Your task to perform on an android device: What is the news today? Image 0: 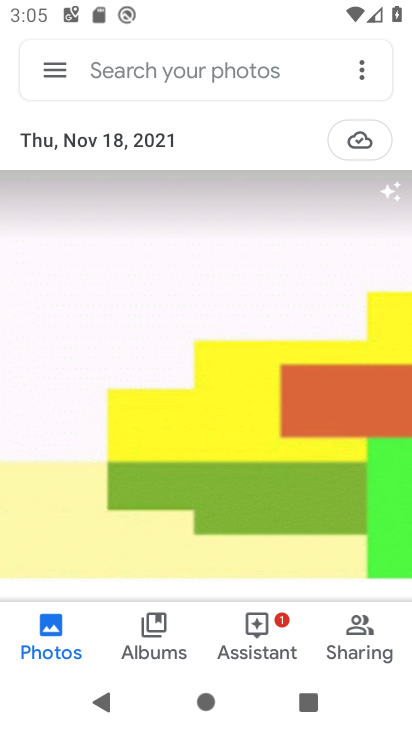
Step 0: press home button
Your task to perform on an android device: What is the news today? Image 1: 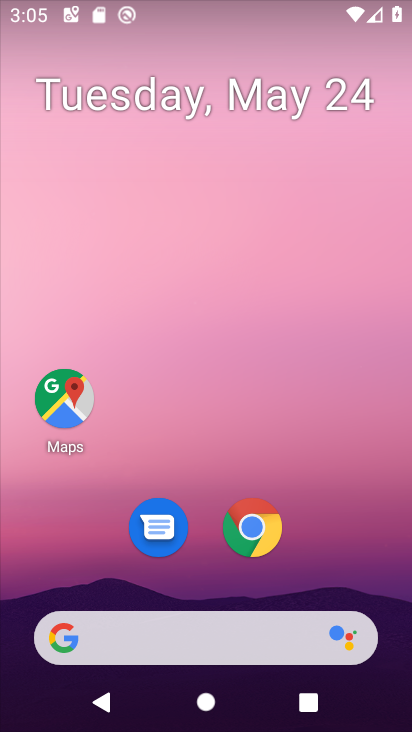
Step 1: click (102, 635)
Your task to perform on an android device: What is the news today? Image 2: 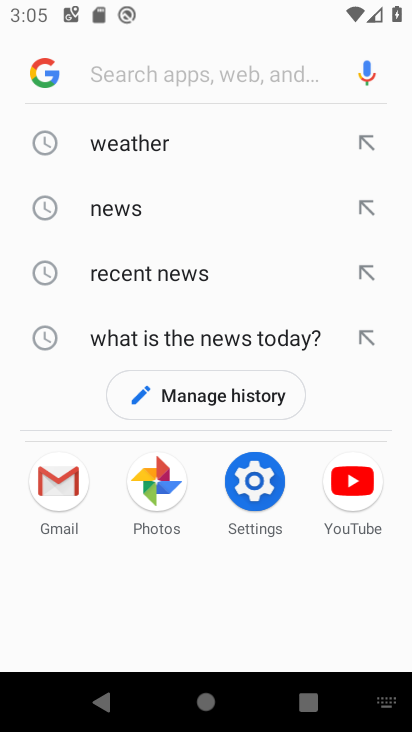
Step 2: click (150, 76)
Your task to perform on an android device: What is the news today? Image 3: 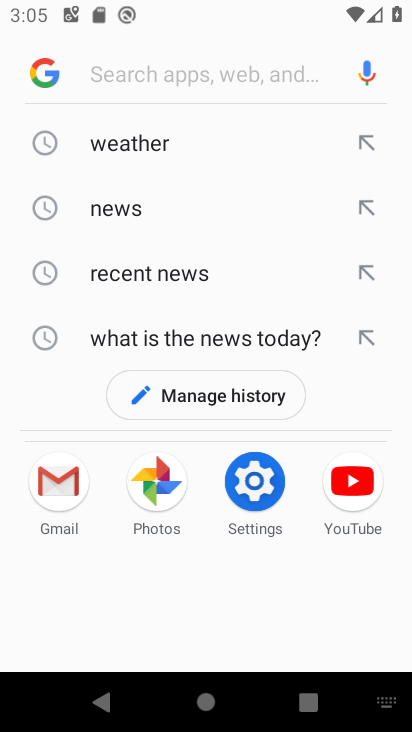
Step 3: type "news today"
Your task to perform on an android device: What is the news today? Image 4: 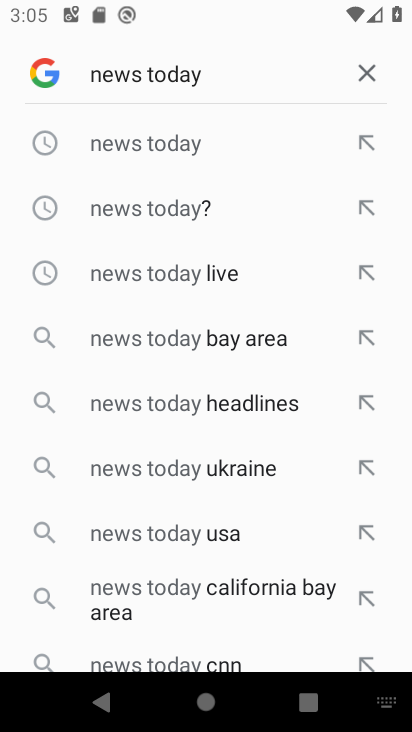
Step 4: click (136, 152)
Your task to perform on an android device: What is the news today? Image 5: 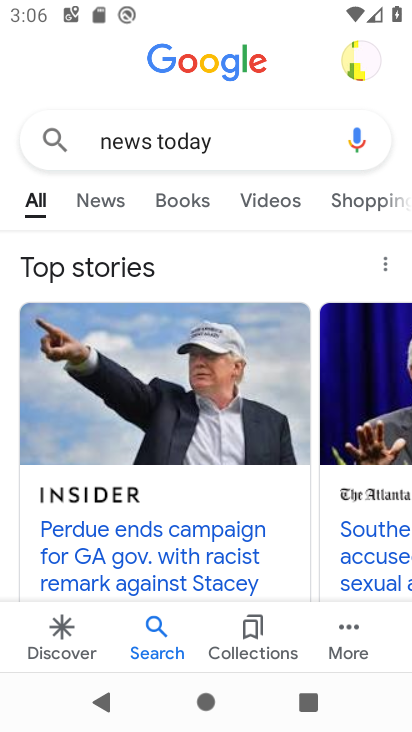
Step 5: click (86, 197)
Your task to perform on an android device: What is the news today? Image 6: 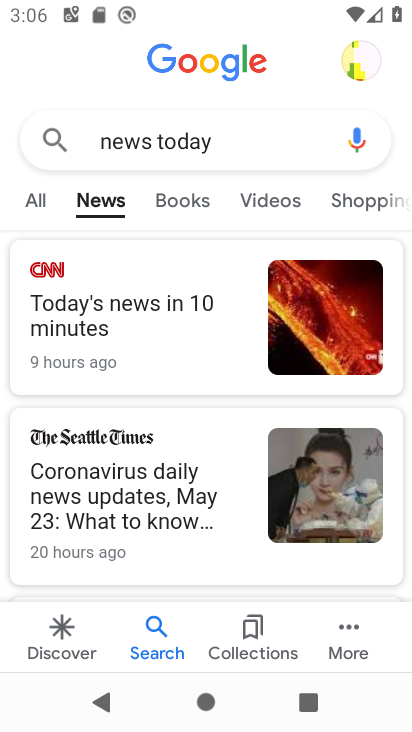
Step 6: drag from (139, 491) to (140, 334)
Your task to perform on an android device: What is the news today? Image 7: 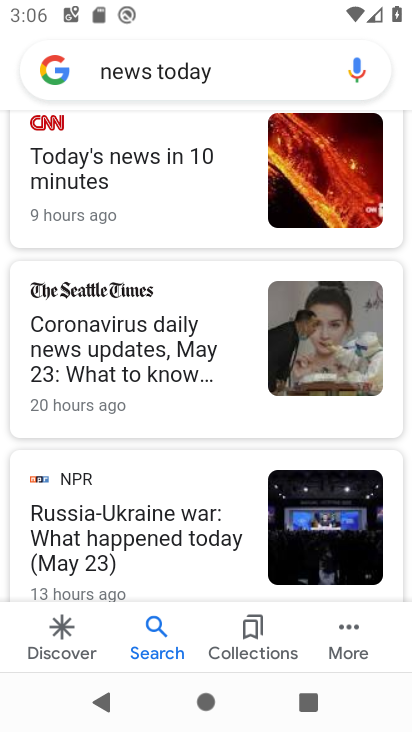
Step 7: drag from (145, 450) to (150, 239)
Your task to perform on an android device: What is the news today? Image 8: 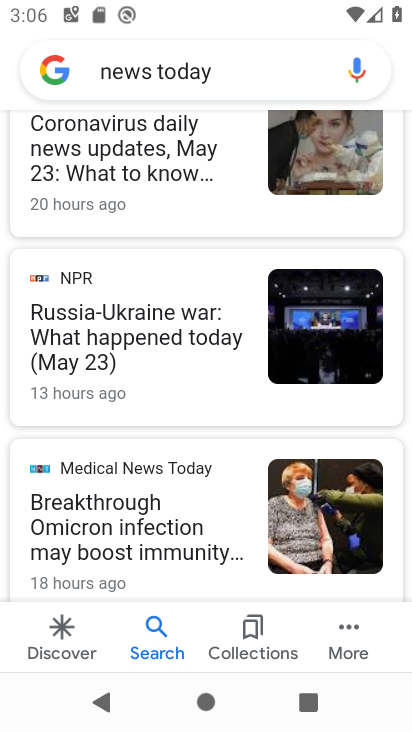
Step 8: drag from (173, 442) to (174, 206)
Your task to perform on an android device: What is the news today? Image 9: 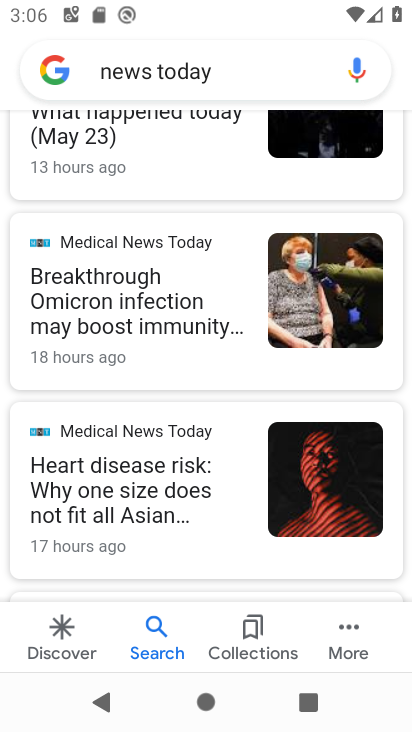
Step 9: drag from (176, 496) to (148, 165)
Your task to perform on an android device: What is the news today? Image 10: 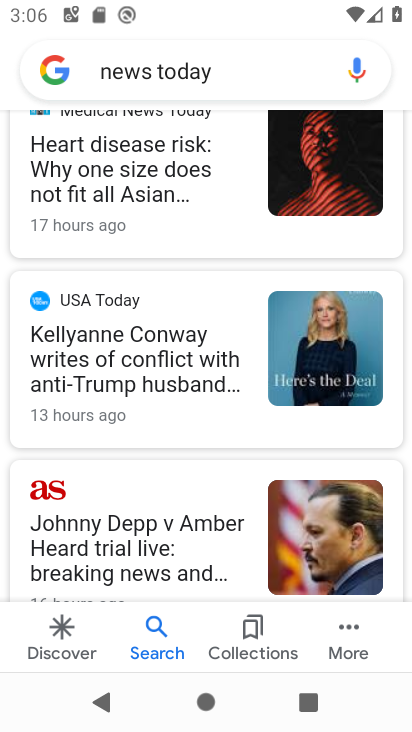
Step 10: drag from (136, 527) to (141, 187)
Your task to perform on an android device: What is the news today? Image 11: 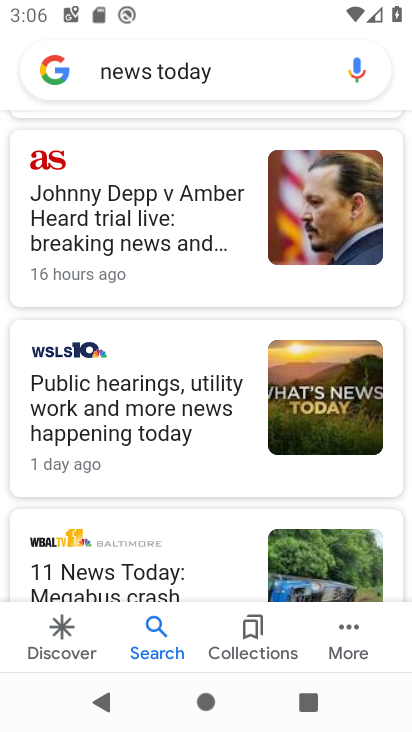
Step 11: drag from (157, 440) to (156, 179)
Your task to perform on an android device: What is the news today? Image 12: 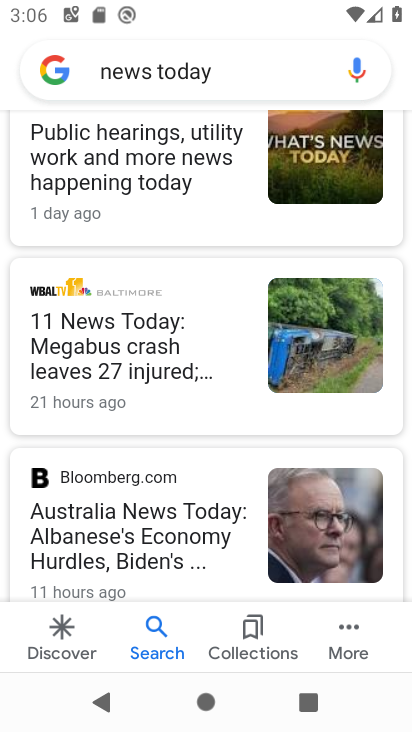
Step 12: drag from (145, 488) to (156, 262)
Your task to perform on an android device: What is the news today? Image 13: 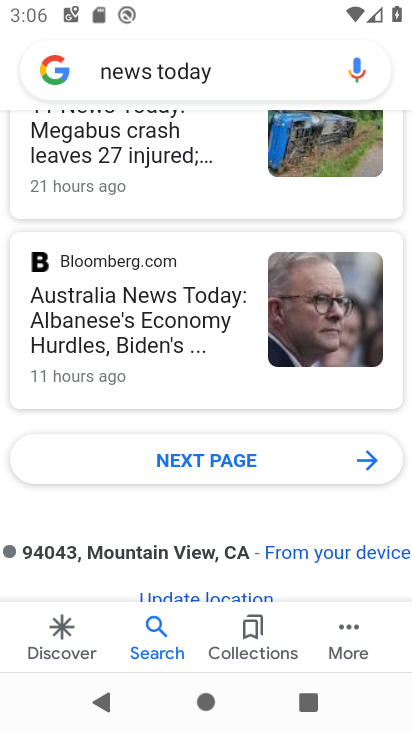
Step 13: drag from (168, 240) to (151, 516)
Your task to perform on an android device: What is the news today? Image 14: 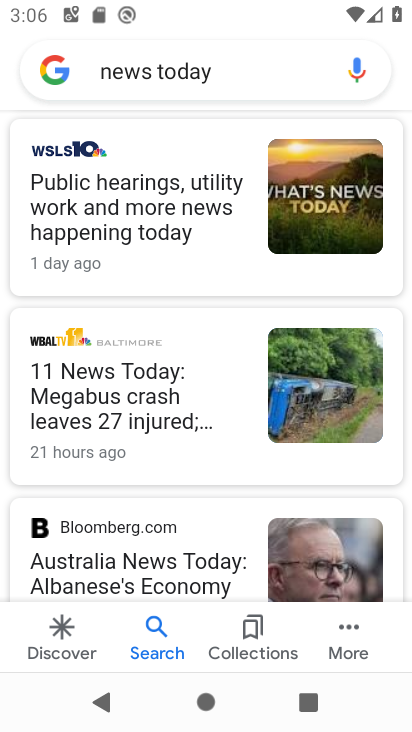
Step 14: drag from (125, 223) to (76, 625)
Your task to perform on an android device: What is the news today? Image 15: 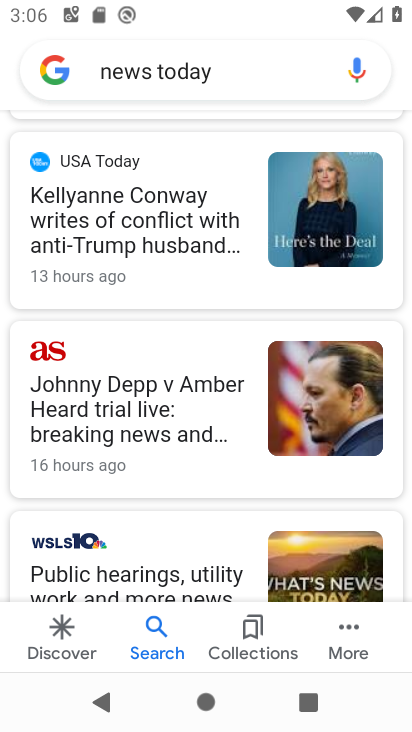
Step 15: drag from (128, 314) to (96, 673)
Your task to perform on an android device: What is the news today? Image 16: 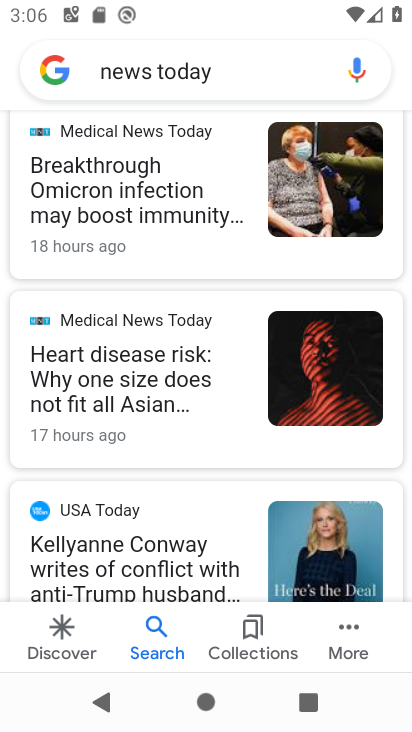
Step 16: drag from (145, 355) to (122, 633)
Your task to perform on an android device: What is the news today? Image 17: 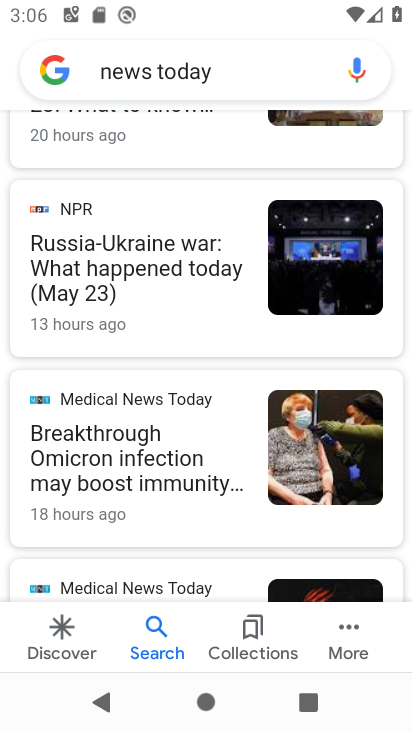
Step 17: drag from (150, 281) to (109, 645)
Your task to perform on an android device: What is the news today? Image 18: 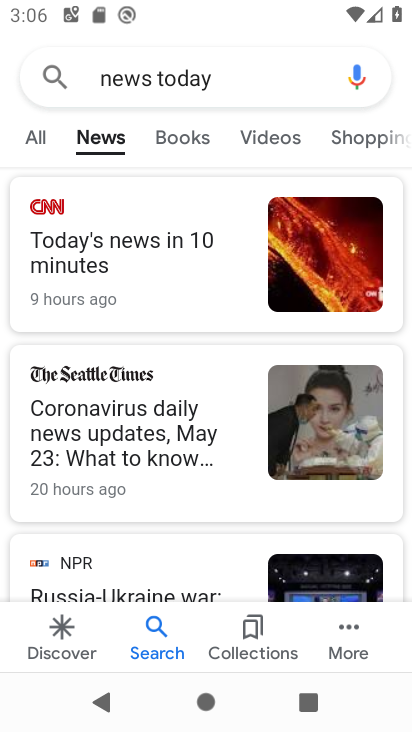
Step 18: drag from (158, 277) to (139, 541)
Your task to perform on an android device: What is the news today? Image 19: 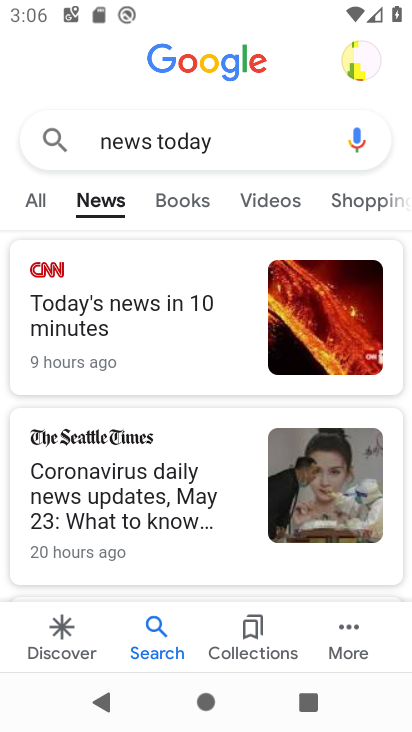
Step 19: click (80, 319)
Your task to perform on an android device: What is the news today? Image 20: 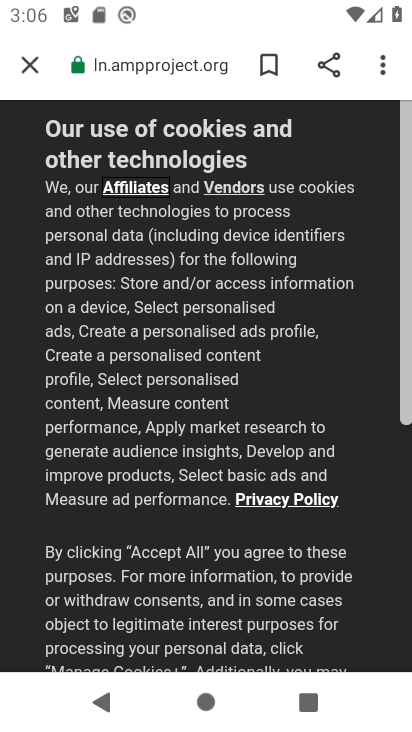
Step 20: task complete